Your task to perform on an android device: open app "DuckDuckGo Privacy Browser" Image 0: 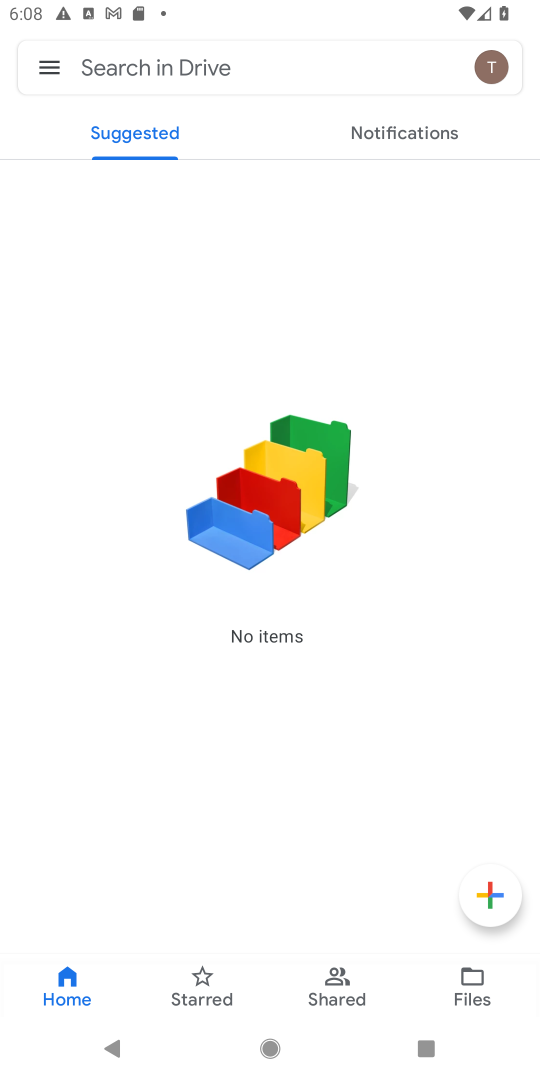
Step 0: press home button
Your task to perform on an android device: open app "DuckDuckGo Privacy Browser" Image 1: 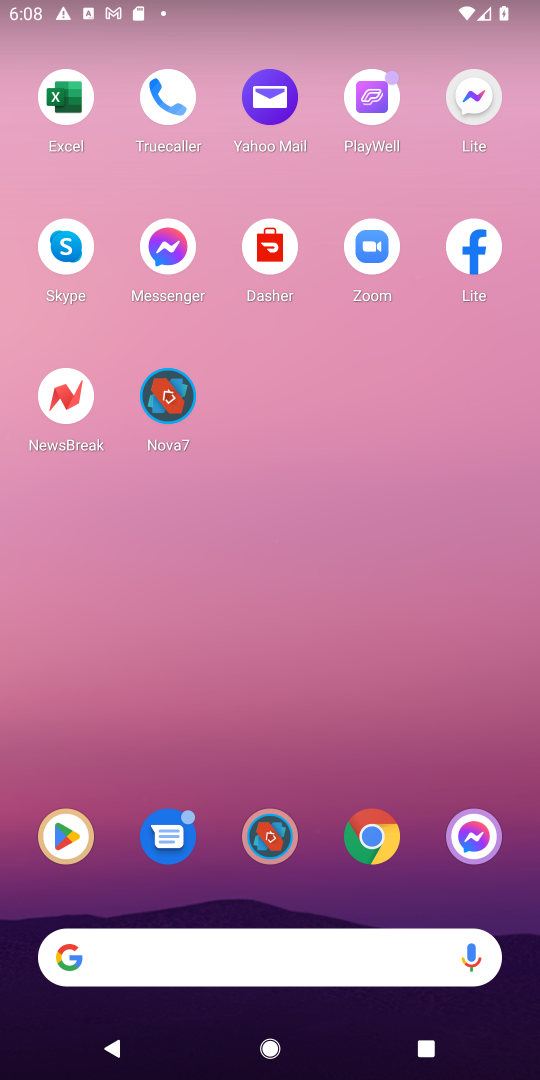
Step 1: click (54, 827)
Your task to perform on an android device: open app "DuckDuckGo Privacy Browser" Image 2: 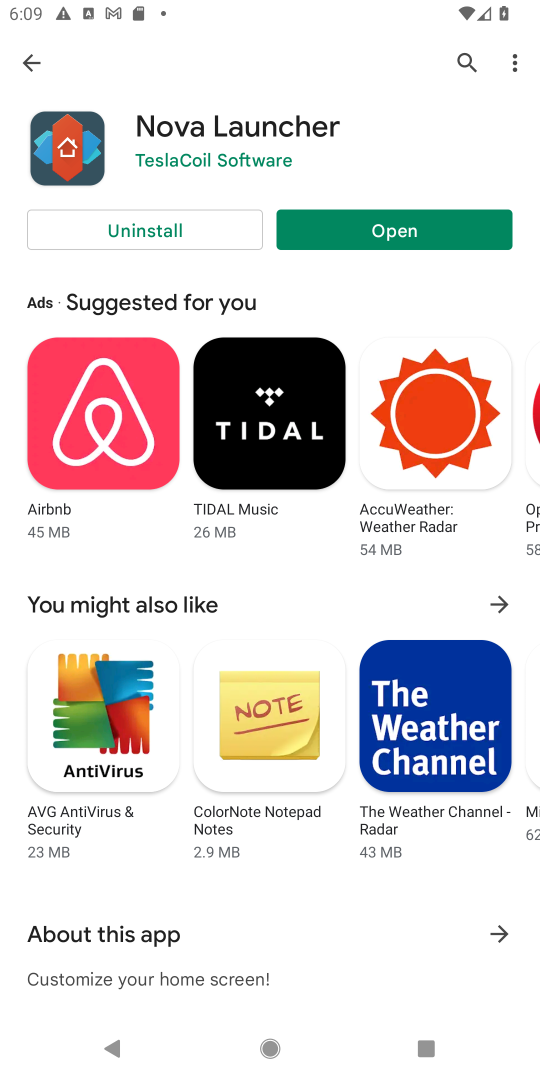
Step 2: click (463, 60)
Your task to perform on an android device: open app "DuckDuckGo Privacy Browser" Image 3: 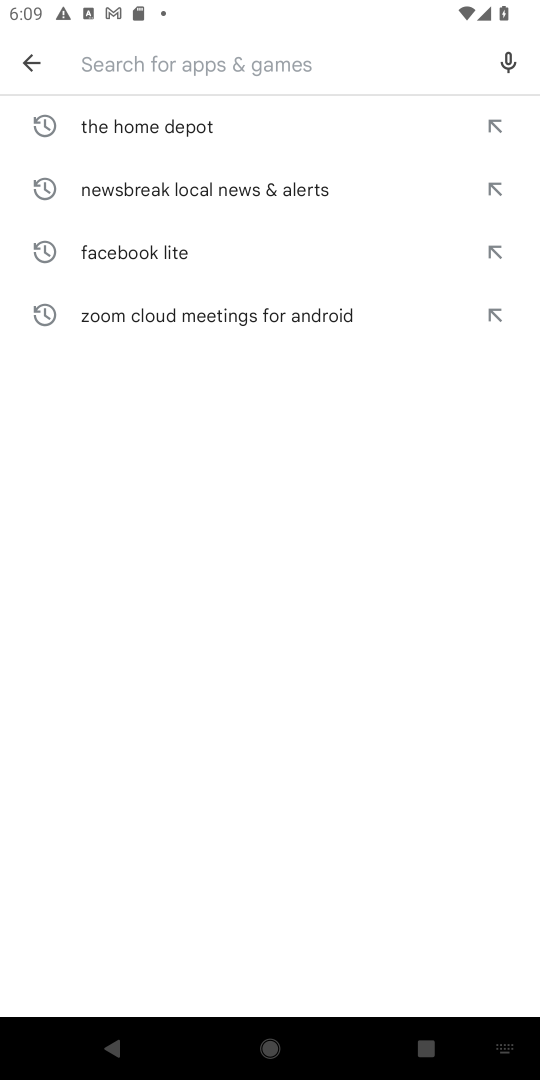
Step 3: type "DuckDuckGo Privacy Browser"
Your task to perform on an android device: open app "DuckDuckGo Privacy Browser" Image 4: 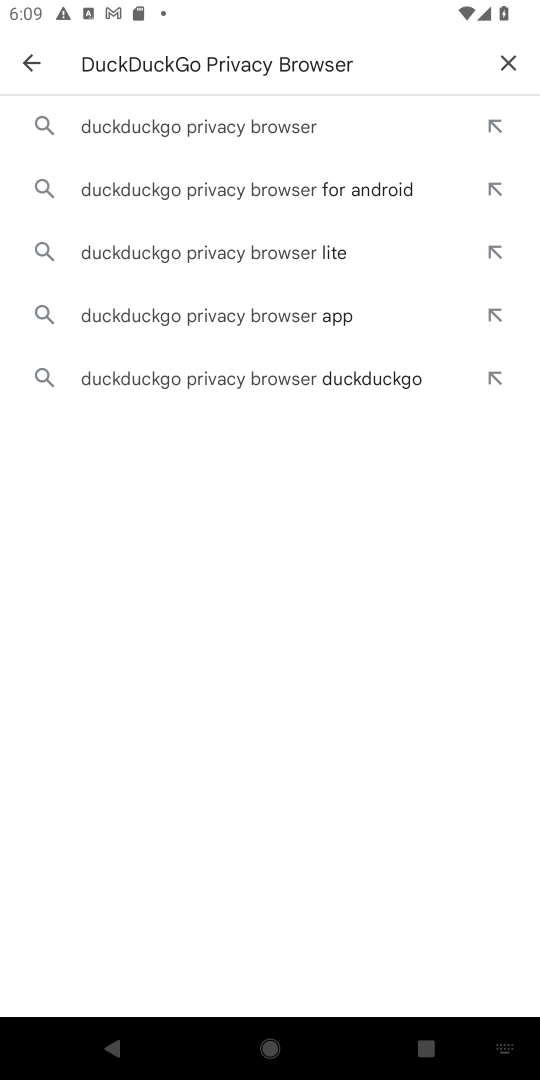
Step 4: click (199, 119)
Your task to perform on an android device: open app "DuckDuckGo Privacy Browser" Image 5: 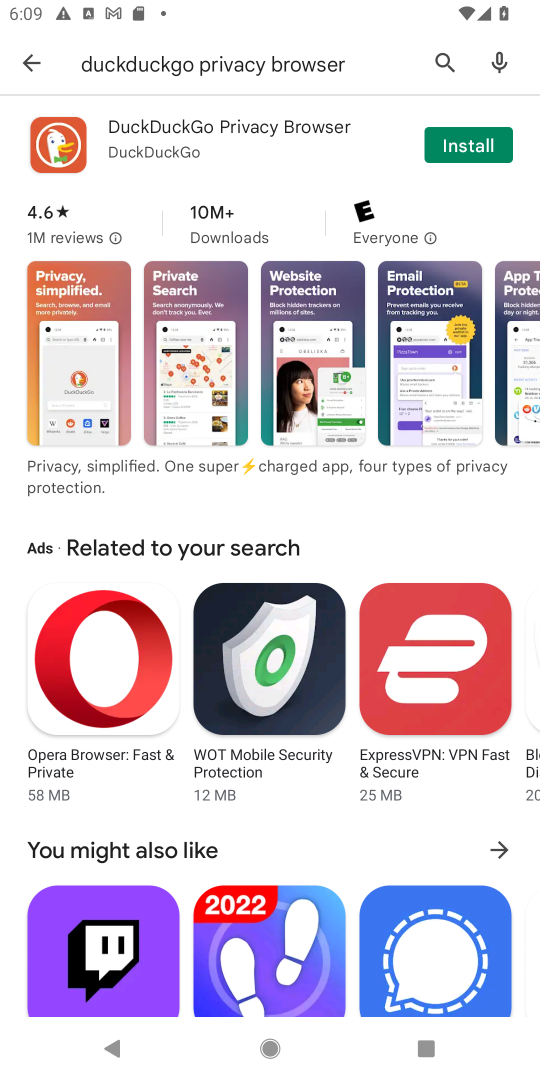
Step 5: task complete